Your task to perform on an android device: View the shopping cart on target.com. Add acer predator to the cart on target.com, then select checkout. Image 0: 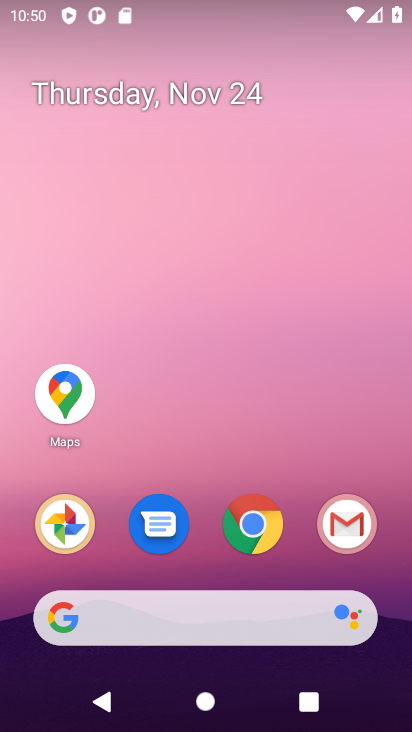
Step 0: click (260, 529)
Your task to perform on an android device: View the shopping cart on target.com. Add acer predator to the cart on target.com, then select checkout. Image 1: 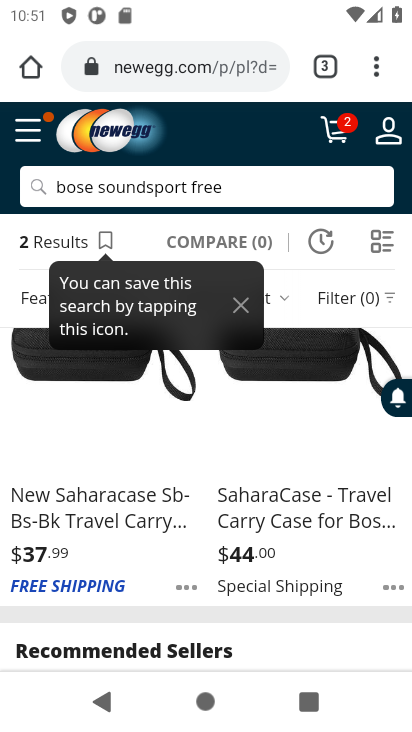
Step 1: click (164, 69)
Your task to perform on an android device: View the shopping cart on target.com. Add acer predator to the cart on target.com, then select checkout. Image 2: 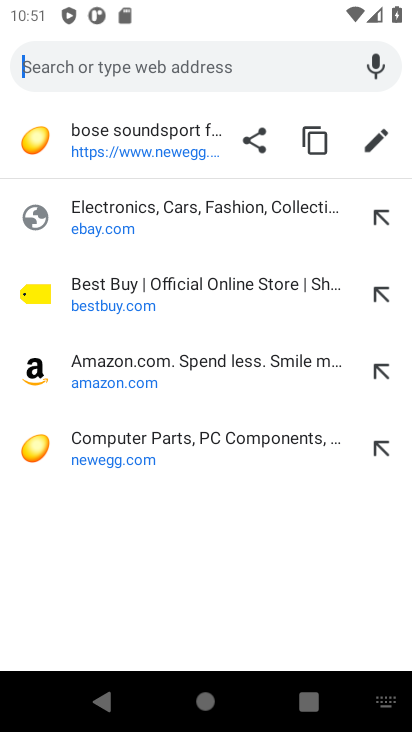
Step 2: type "target.com"
Your task to perform on an android device: View the shopping cart on target.com. Add acer predator to the cart on target.com, then select checkout. Image 3: 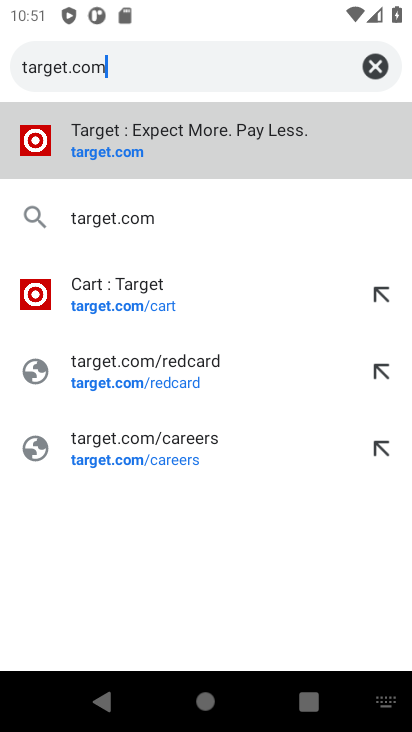
Step 3: click (103, 153)
Your task to perform on an android device: View the shopping cart on target.com. Add acer predator to the cart on target.com, then select checkout. Image 4: 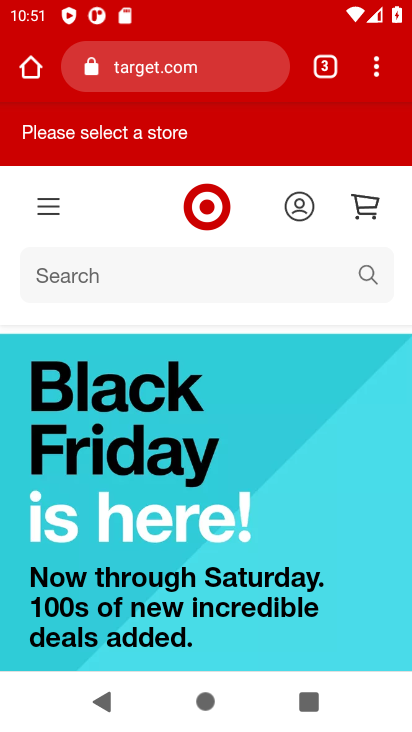
Step 4: click (360, 197)
Your task to perform on an android device: View the shopping cart on target.com. Add acer predator to the cart on target.com, then select checkout. Image 5: 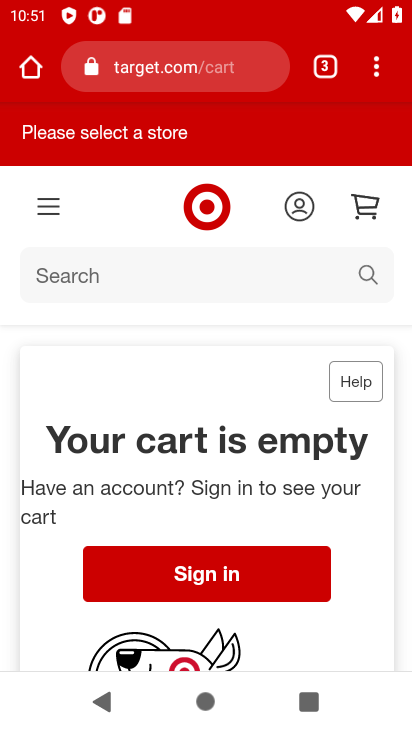
Step 5: drag from (211, 521) to (205, 303)
Your task to perform on an android device: View the shopping cart on target.com. Add acer predator to the cart on target.com, then select checkout. Image 6: 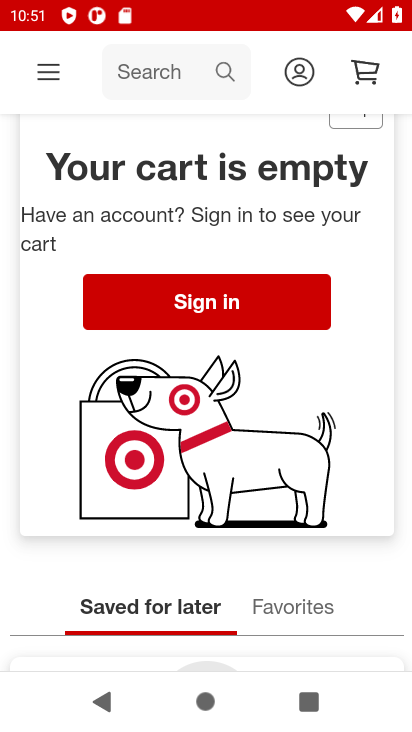
Step 6: click (217, 65)
Your task to perform on an android device: View the shopping cart on target.com. Add acer predator to the cart on target.com, then select checkout. Image 7: 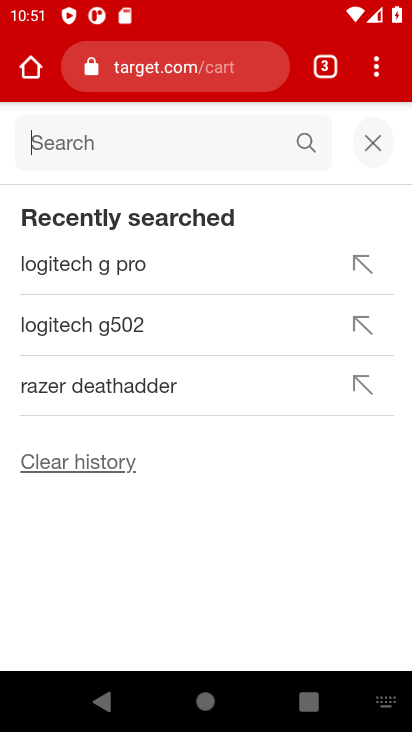
Step 7: type "acer predator"
Your task to perform on an android device: View the shopping cart on target.com. Add acer predator to the cart on target.com, then select checkout. Image 8: 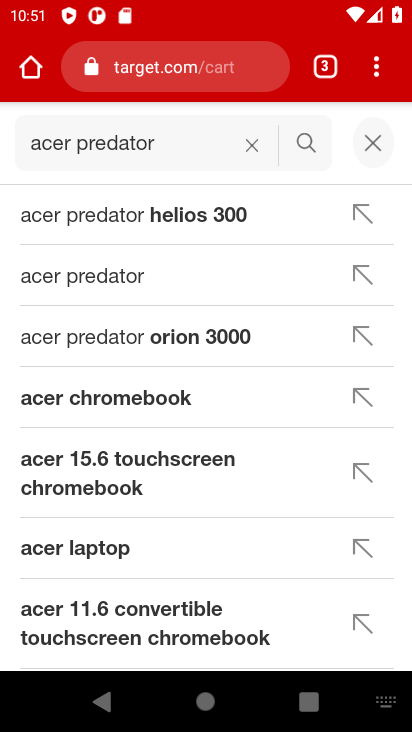
Step 8: click (114, 282)
Your task to perform on an android device: View the shopping cart on target.com. Add acer predator to the cart on target.com, then select checkout. Image 9: 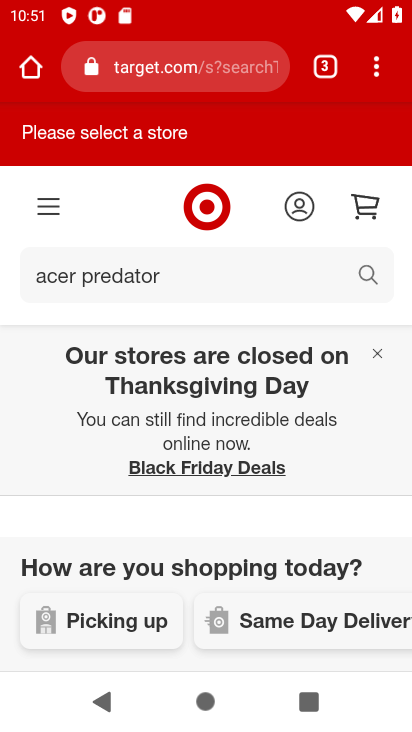
Step 9: drag from (182, 480) to (191, 244)
Your task to perform on an android device: View the shopping cart on target.com. Add acer predator to the cart on target.com, then select checkout. Image 10: 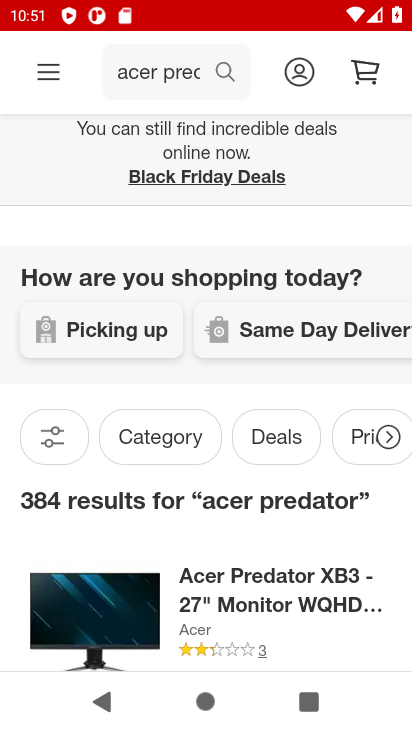
Step 10: drag from (177, 466) to (168, 339)
Your task to perform on an android device: View the shopping cart on target.com. Add acer predator to the cart on target.com, then select checkout. Image 11: 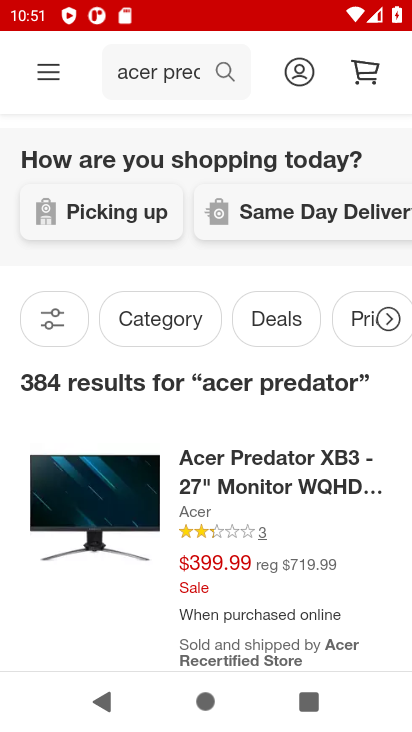
Step 11: drag from (131, 538) to (131, 403)
Your task to perform on an android device: View the shopping cart on target.com. Add acer predator to the cart on target.com, then select checkout. Image 12: 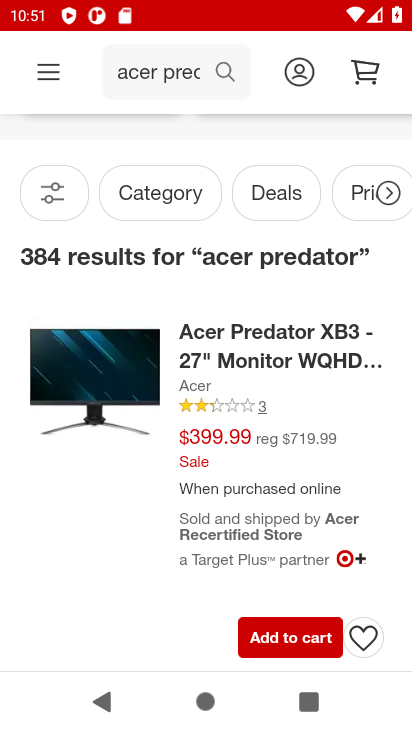
Step 12: click (279, 638)
Your task to perform on an android device: View the shopping cart on target.com. Add acer predator to the cart on target.com, then select checkout. Image 13: 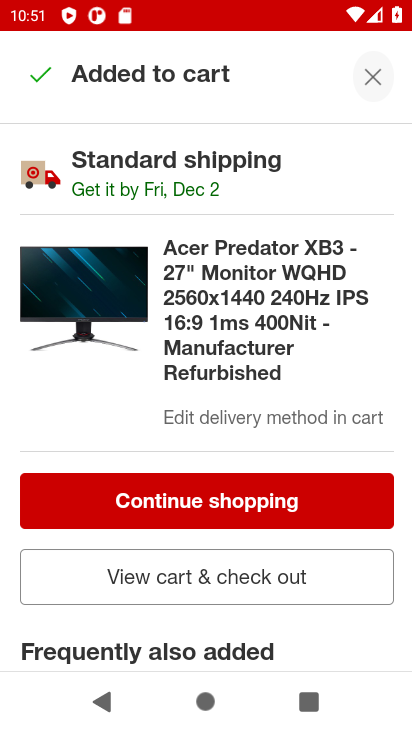
Step 13: click (205, 565)
Your task to perform on an android device: View the shopping cart on target.com. Add acer predator to the cart on target.com, then select checkout. Image 14: 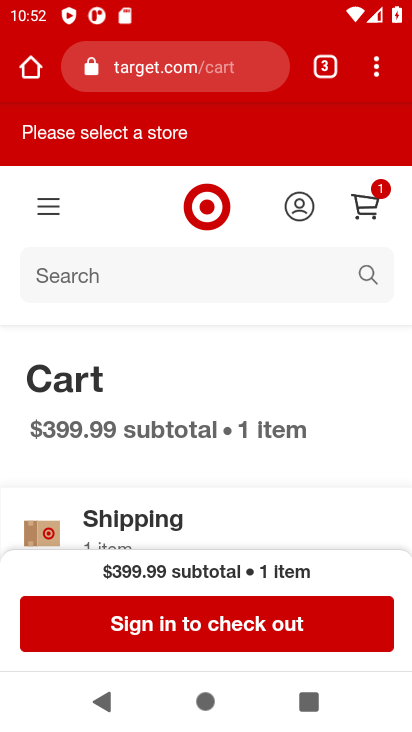
Step 14: task complete